Your task to perform on an android device: Go to location settings Image 0: 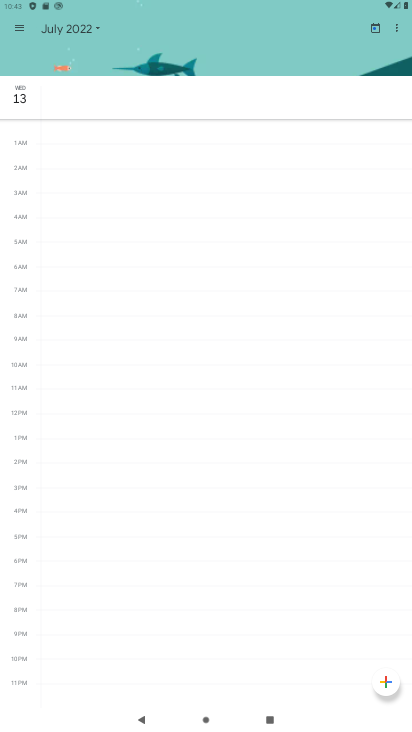
Step 0: press home button
Your task to perform on an android device: Go to location settings Image 1: 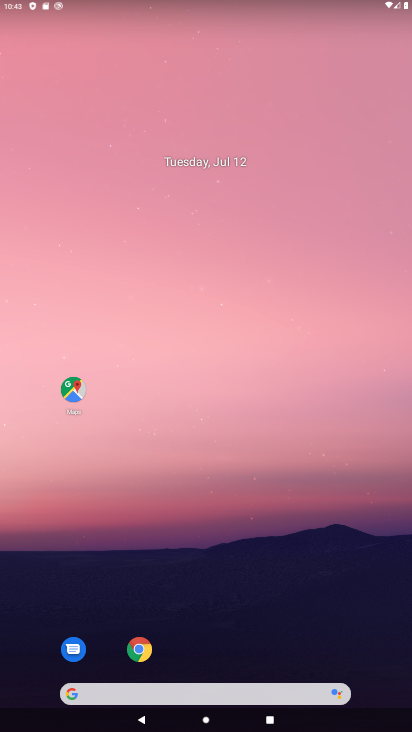
Step 1: drag from (258, 627) to (241, 207)
Your task to perform on an android device: Go to location settings Image 2: 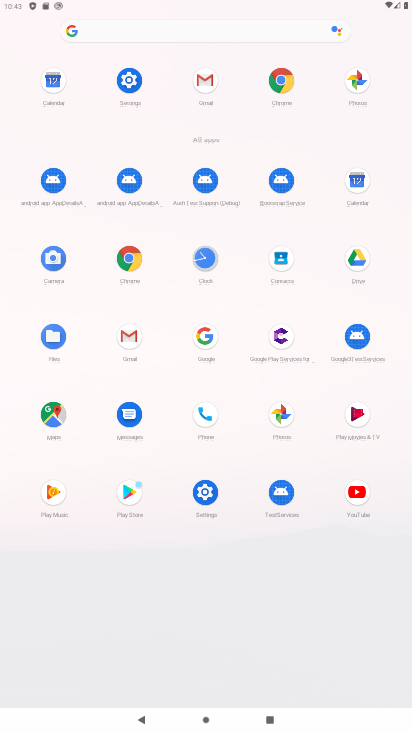
Step 2: click (123, 87)
Your task to perform on an android device: Go to location settings Image 3: 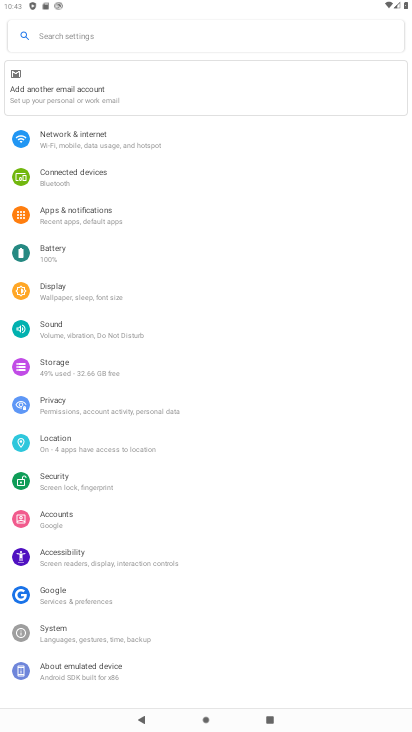
Step 3: click (154, 454)
Your task to perform on an android device: Go to location settings Image 4: 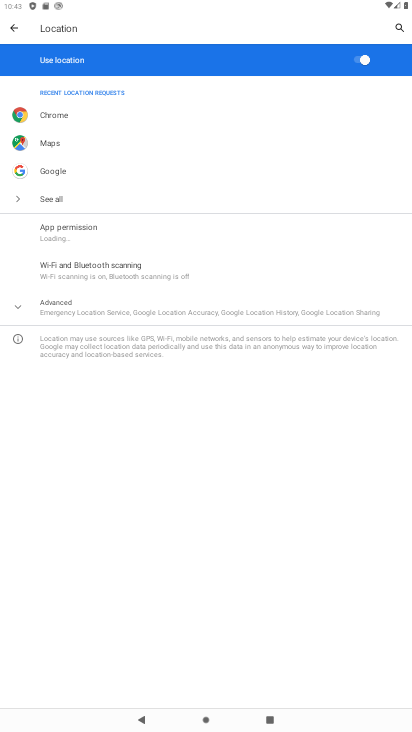
Step 4: task complete